Your task to perform on an android device: open wifi settings Image 0: 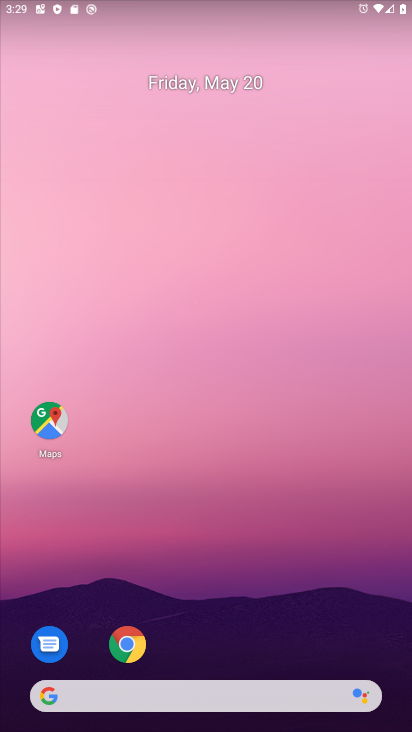
Step 0: drag from (337, 626) to (256, 109)
Your task to perform on an android device: open wifi settings Image 1: 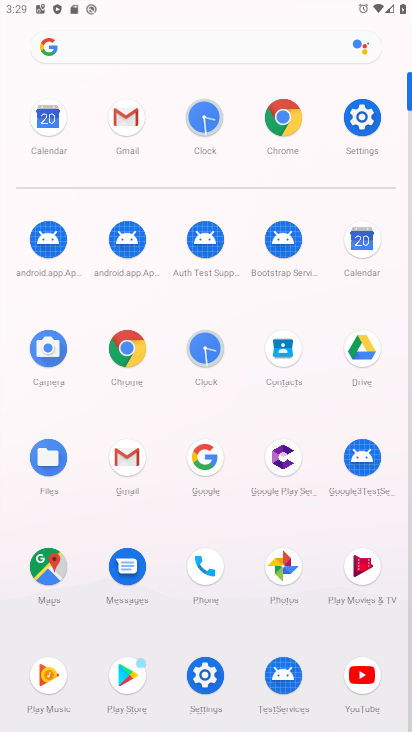
Step 1: click (351, 150)
Your task to perform on an android device: open wifi settings Image 2: 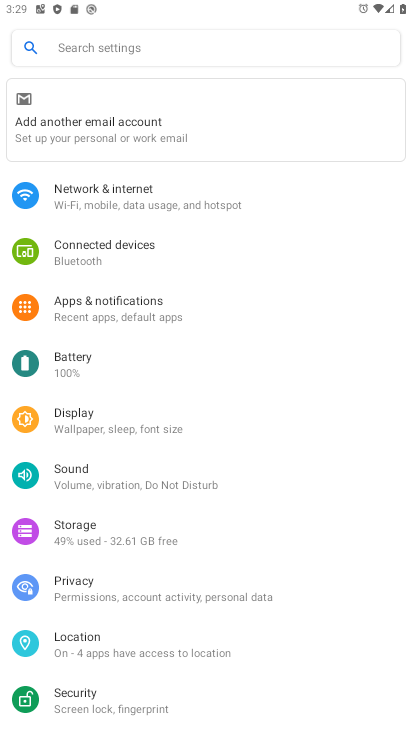
Step 2: click (233, 204)
Your task to perform on an android device: open wifi settings Image 3: 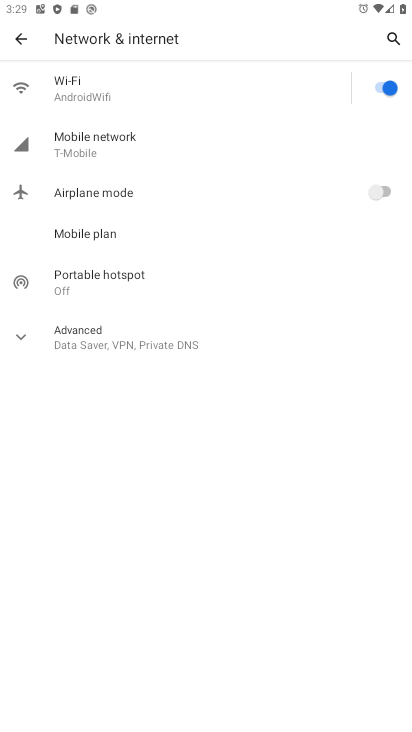
Step 3: task complete